Your task to perform on an android device: change the clock display to digital Image 0: 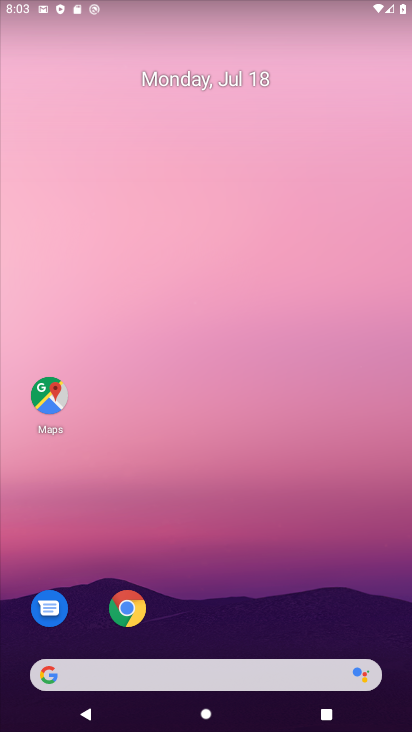
Step 0: click (157, 91)
Your task to perform on an android device: change the clock display to digital Image 1: 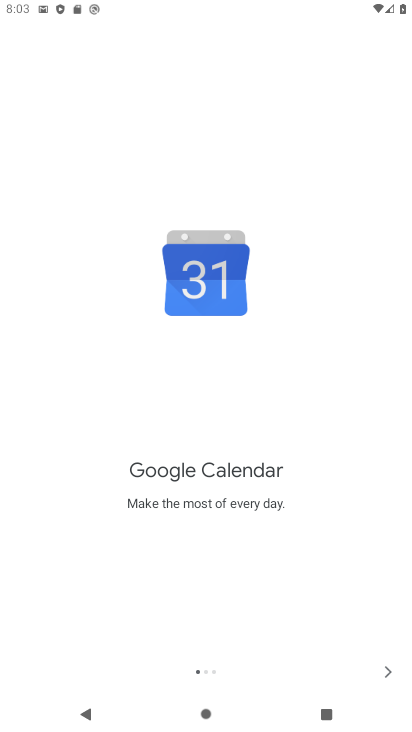
Step 1: press back button
Your task to perform on an android device: change the clock display to digital Image 2: 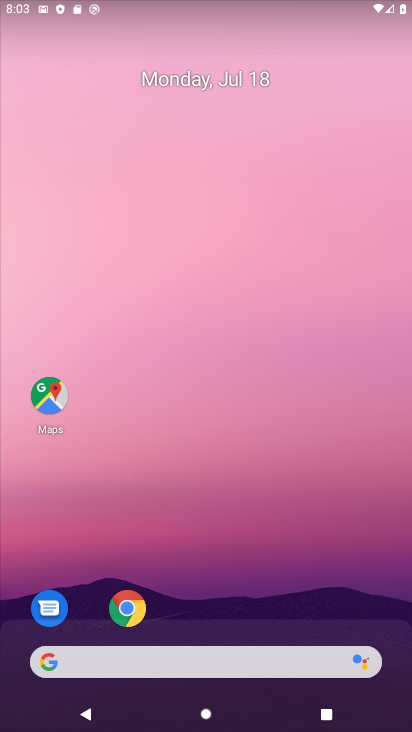
Step 2: drag from (322, 614) to (315, 65)
Your task to perform on an android device: change the clock display to digital Image 3: 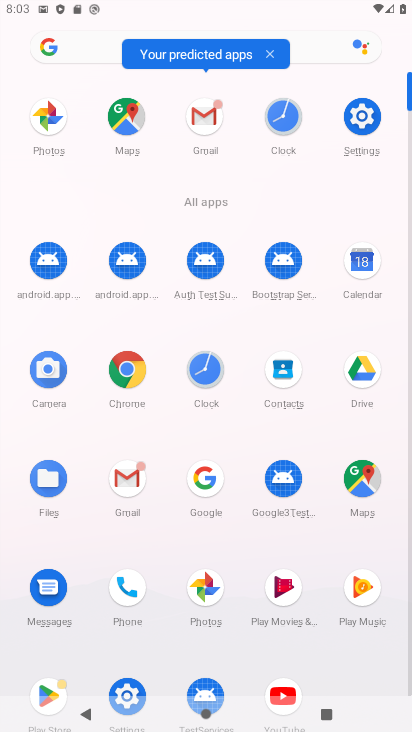
Step 3: click (197, 377)
Your task to perform on an android device: change the clock display to digital Image 4: 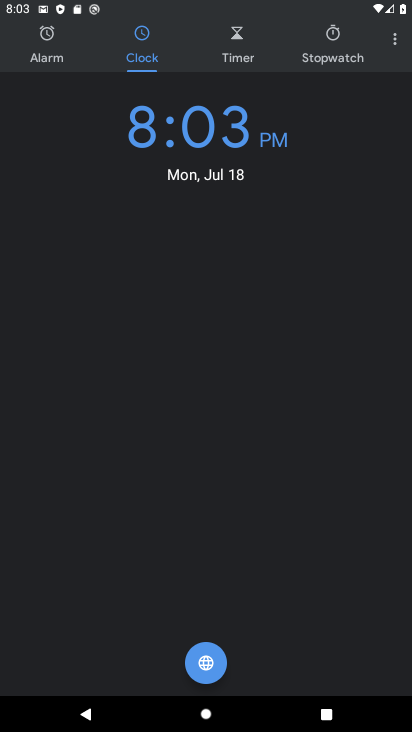
Step 4: click (394, 44)
Your task to perform on an android device: change the clock display to digital Image 5: 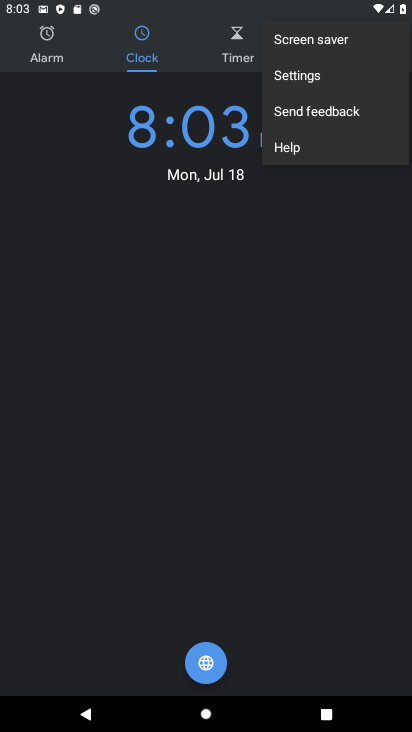
Step 5: click (332, 86)
Your task to perform on an android device: change the clock display to digital Image 6: 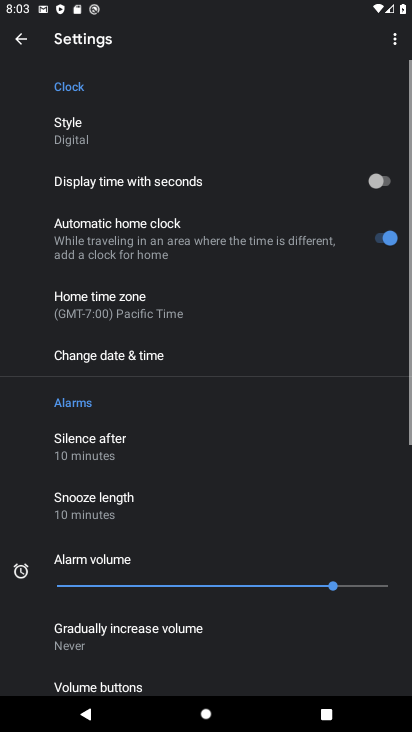
Step 6: click (89, 144)
Your task to perform on an android device: change the clock display to digital Image 7: 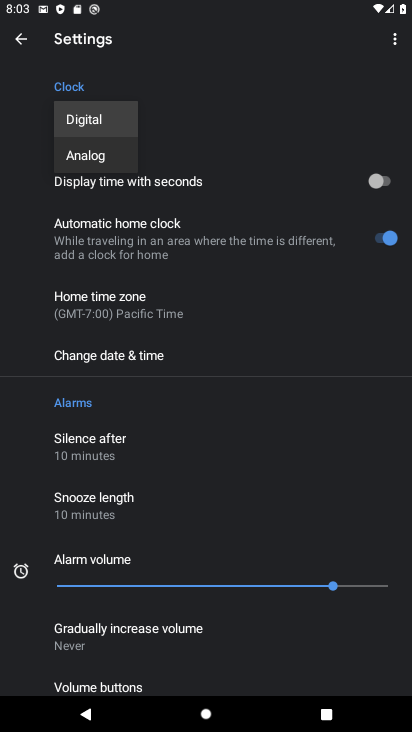
Step 7: click (110, 125)
Your task to perform on an android device: change the clock display to digital Image 8: 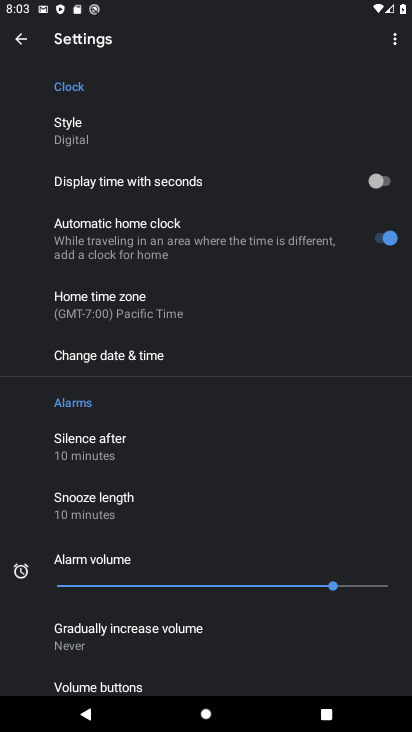
Step 8: task complete